Your task to perform on an android device: install app "Life360: Find Family & Friends" Image 0: 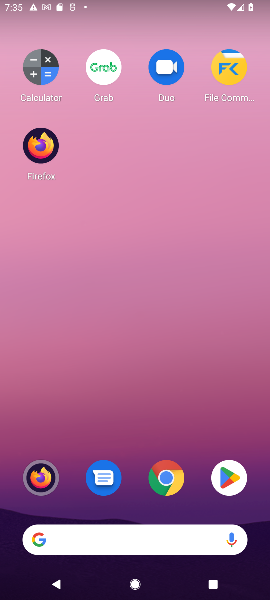
Step 0: press home button
Your task to perform on an android device: install app "Life360: Find Family & Friends" Image 1: 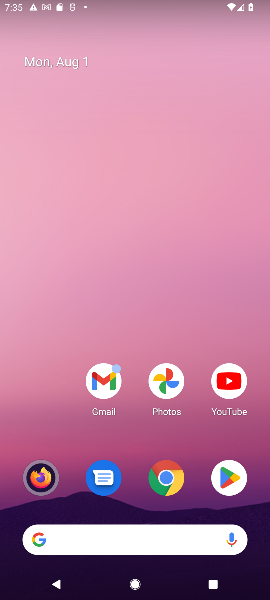
Step 1: click (223, 475)
Your task to perform on an android device: install app "Life360: Find Family & Friends" Image 2: 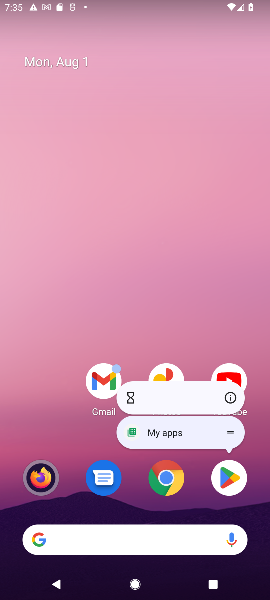
Step 2: click (233, 481)
Your task to perform on an android device: install app "Life360: Find Family & Friends" Image 3: 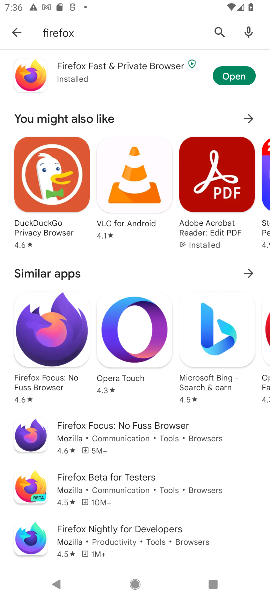
Step 3: click (223, 40)
Your task to perform on an android device: install app "Life360: Find Family & Friends" Image 4: 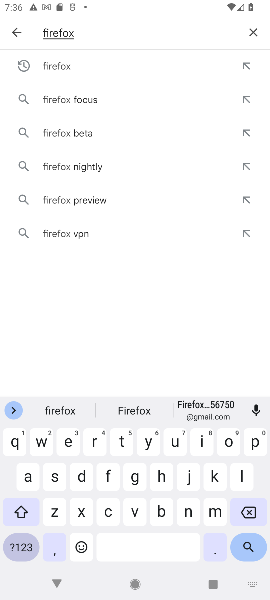
Step 4: click (255, 30)
Your task to perform on an android device: install app "Life360: Find Family & Friends" Image 5: 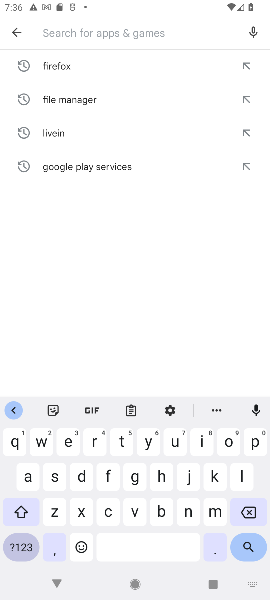
Step 5: click (238, 476)
Your task to perform on an android device: install app "Life360: Find Family & Friends" Image 6: 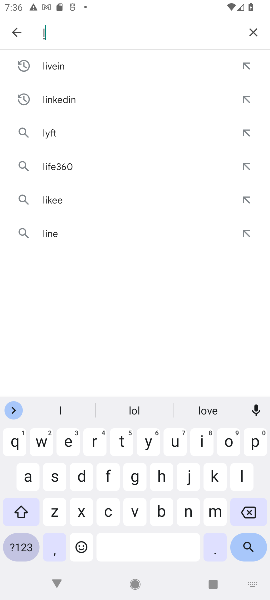
Step 6: click (199, 437)
Your task to perform on an android device: install app "Life360: Find Family & Friends" Image 7: 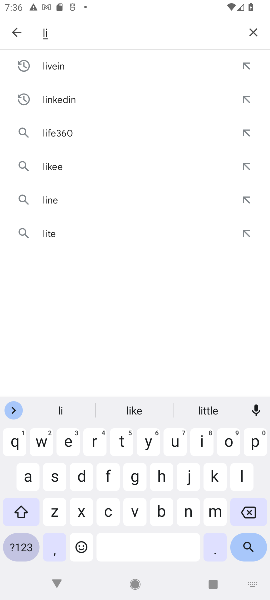
Step 7: click (105, 477)
Your task to perform on an android device: install app "Life360: Find Family & Friends" Image 8: 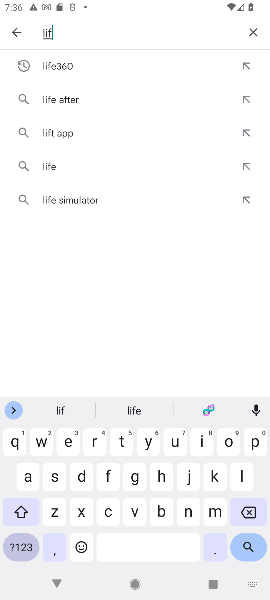
Step 8: click (73, 69)
Your task to perform on an android device: install app "Life360: Find Family & Friends" Image 9: 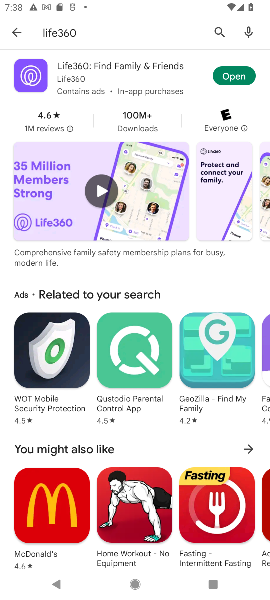
Step 9: task complete